Your task to perform on an android device: Find coffee shops on Maps Image 0: 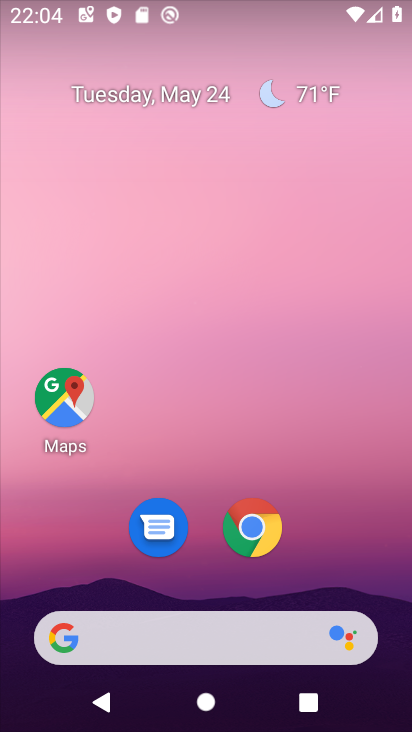
Step 0: drag from (207, 573) to (175, 139)
Your task to perform on an android device: Find coffee shops on Maps Image 1: 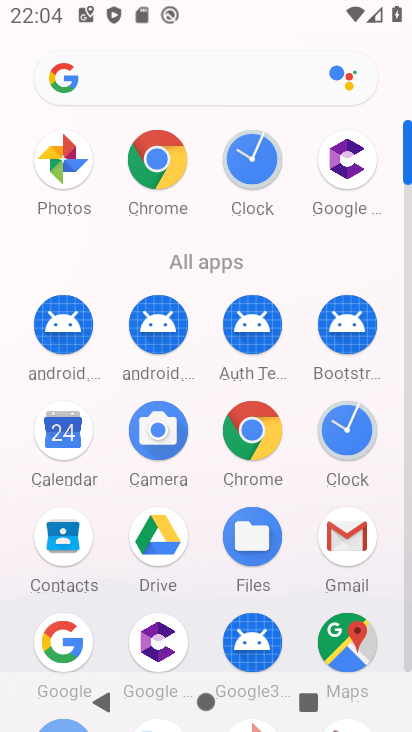
Step 1: click (350, 642)
Your task to perform on an android device: Find coffee shops on Maps Image 2: 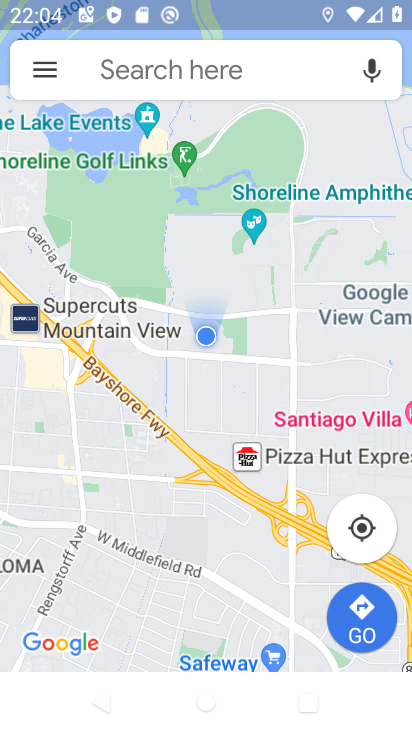
Step 2: click (198, 73)
Your task to perform on an android device: Find coffee shops on Maps Image 3: 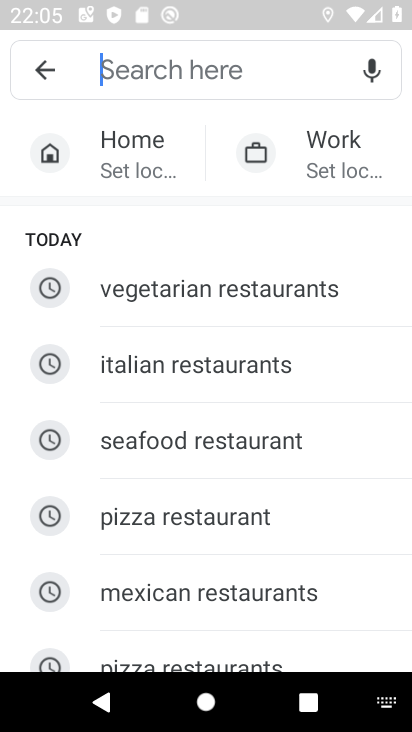
Step 3: type "coffe shops"
Your task to perform on an android device: Find coffee shops on Maps Image 4: 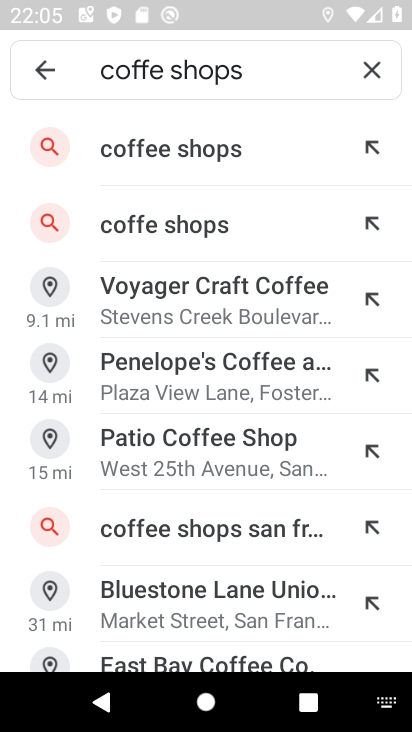
Step 4: click (120, 124)
Your task to perform on an android device: Find coffee shops on Maps Image 5: 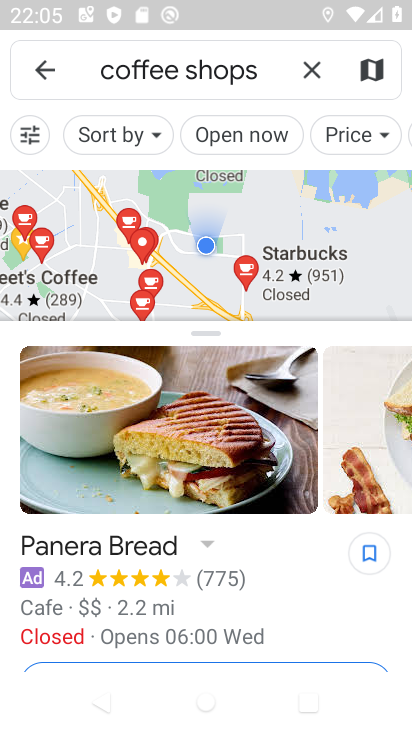
Step 5: task complete